Your task to perform on an android device: Open calendar and show me the first week of next month Image 0: 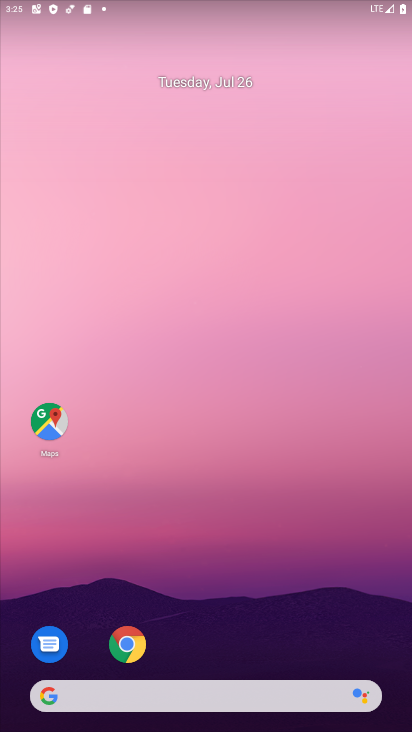
Step 0: drag from (244, 463) to (244, 171)
Your task to perform on an android device: Open calendar and show me the first week of next month Image 1: 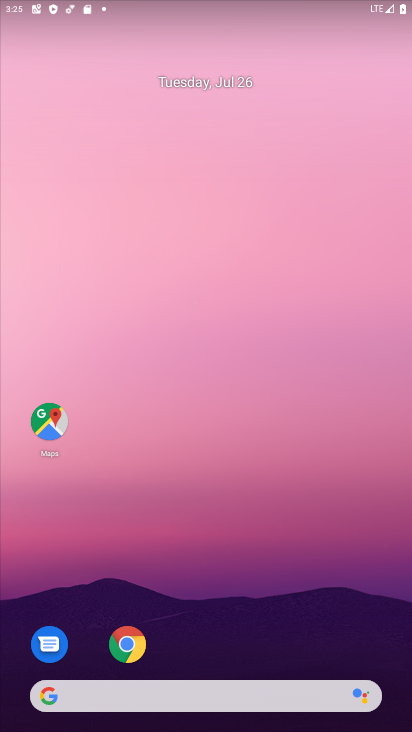
Step 1: drag from (189, 673) to (188, 71)
Your task to perform on an android device: Open calendar and show me the first week of next month Image 2: 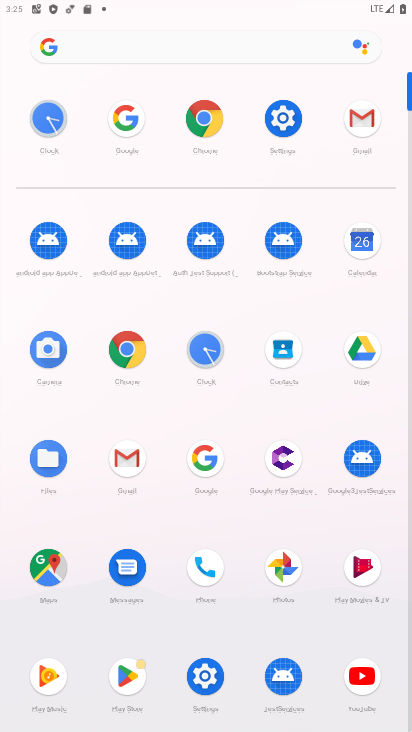
Step 2: click (377, 242)
Your task to perform on an android device: Open calendar and show me the first week of next month Image 3: 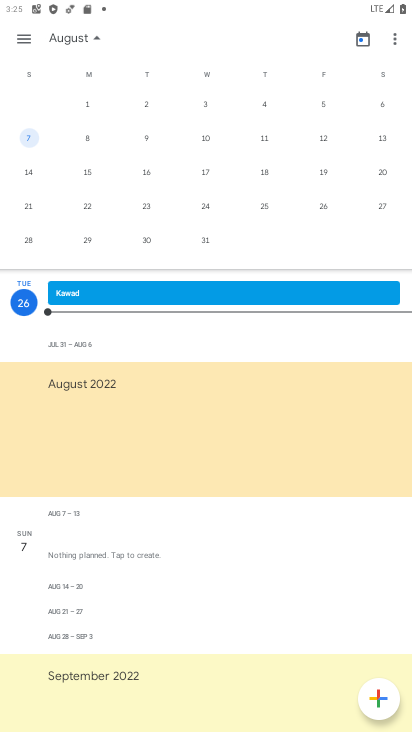
Step 3: click (86, 102)
Your task to perform on an android device: Open calendar and show me the first week of next month Image 4: 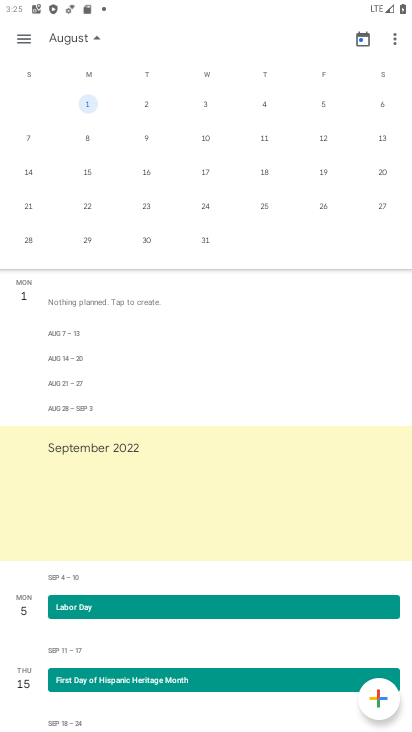
Step 4: task complete